Your task to perform on an android device: toggle pop-ups in chrome Image 0: 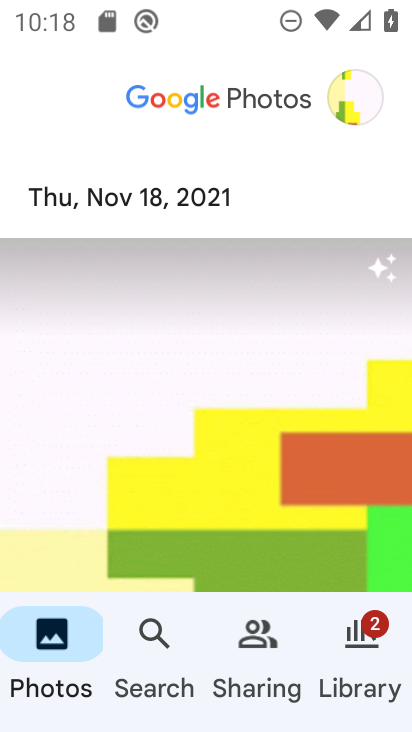
Step 0: press home button
Your task to perform on an android device: toggle pop-ups in chrome Image 1: 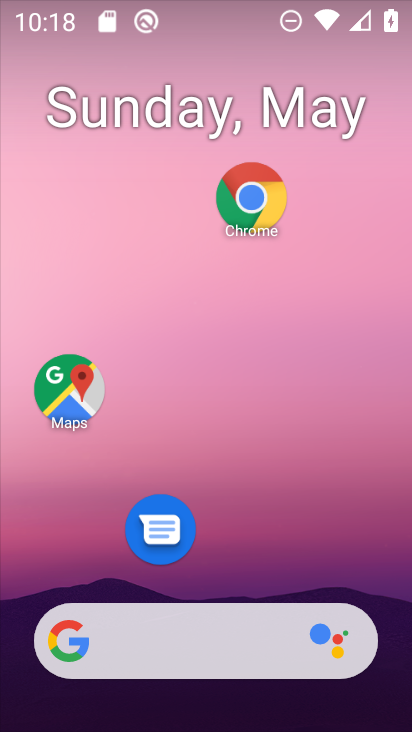
Step 1: click (246, 203)
Your task to perform on an android device: toggle pop-ups in chrome Image 2: 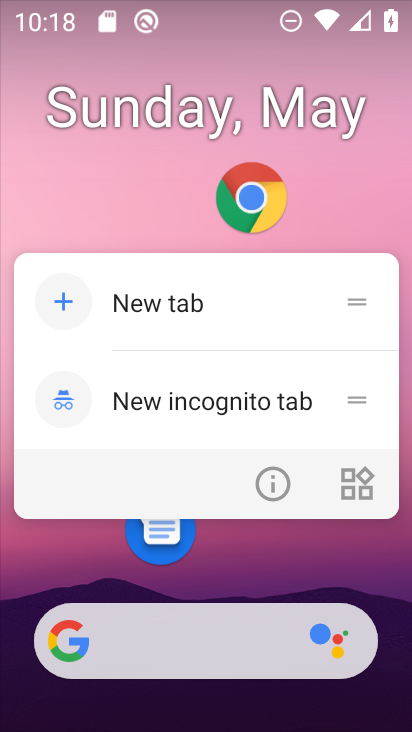
Step 2: click (253, 207)
Your task to perform on an android device: toggle pop-ups in chrome Image 3: 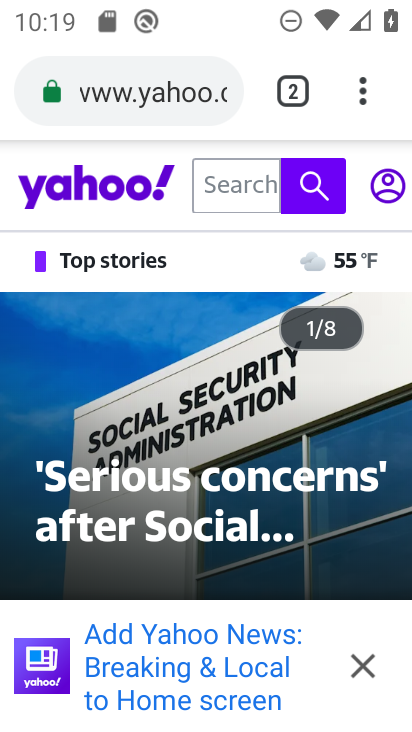
Step 3: click (359, 93)
Your task to perform on an android device: toggle pop-ups in chrome Image 4: 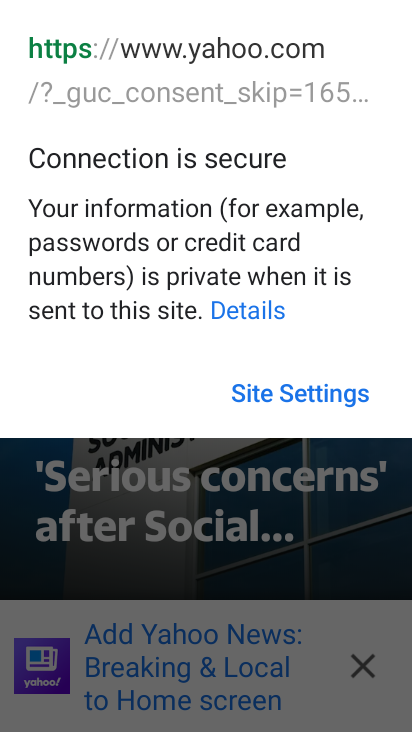
Step 4: click (172, 456)
Your task to perform on an android device: toggle pop-ups in chrome Image 5: 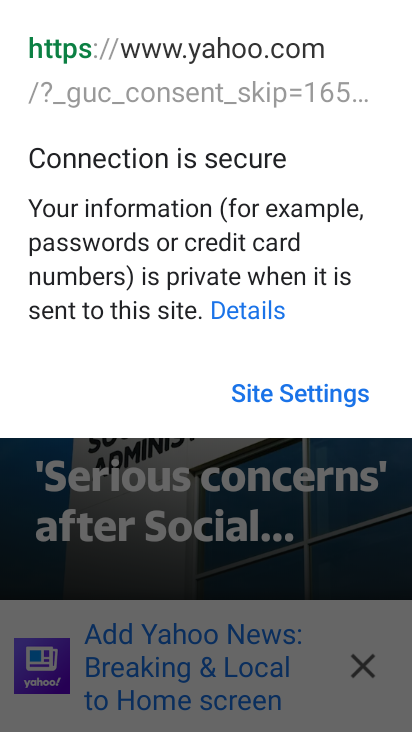
Step 5: click (170, 478)
Your task to perform on an android device: toggle pop-ups in chrome Image 6: 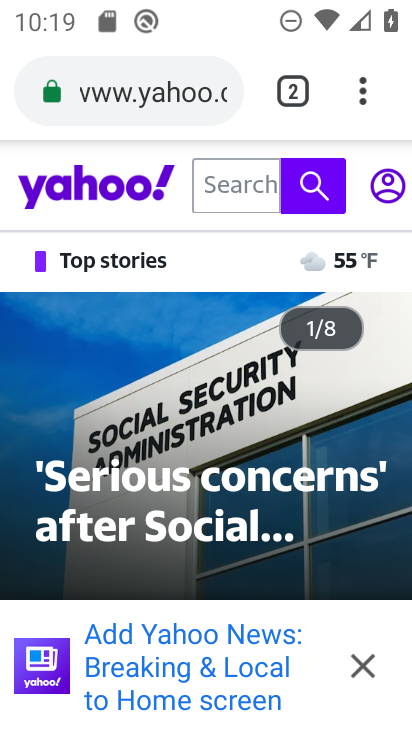
Step 6: click (353, 90)
Your task to perform on an android device: toggle pop-ups in chrome Image 7: 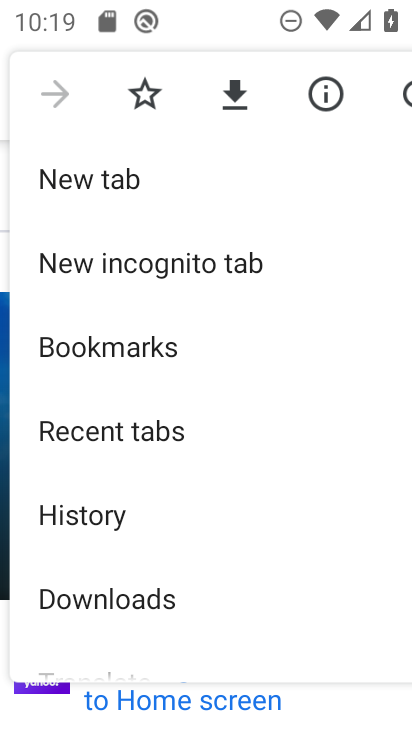
Step 7: drag from (204, 559) to (198, 121)
Your task to perform on an android device: toggle pop-ups in chrome Image 8: 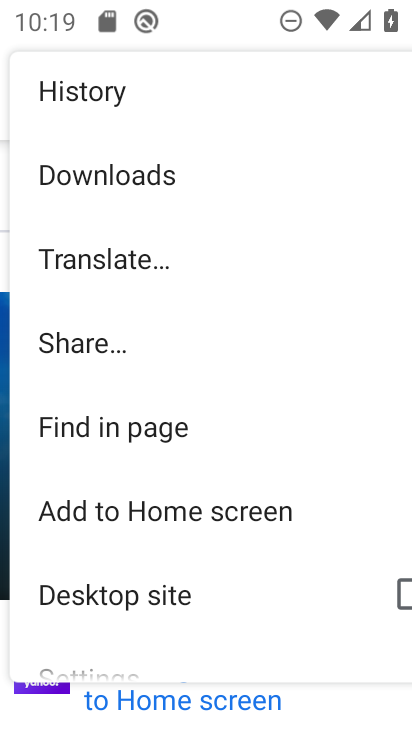
Step 8: drag from (109, 536) to (121, 240)
Your task to perform on an android device: toggle pop-ups in chrome Image 9: 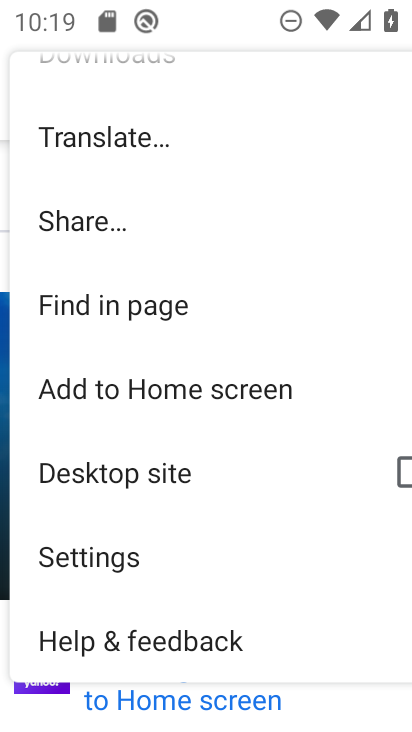
Step 9: click (116, 552)
Your task to perform on an android device: toggle pop-ups in chrome Image 10: 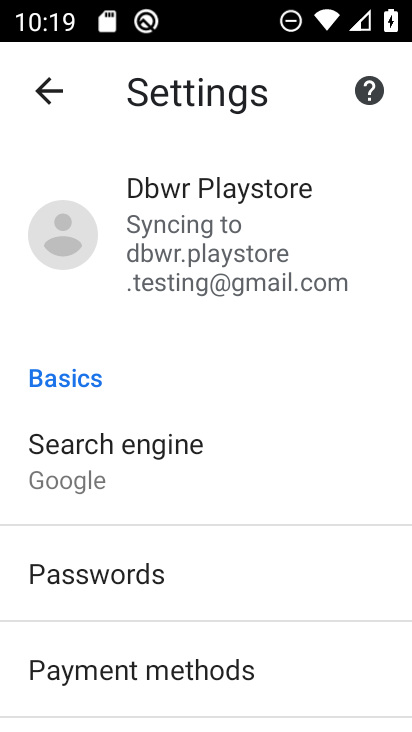
Step 10: drag from (141, 679) to (155, 268)
Your task to perform on an android device: toggle pop-ups in chrome Image 11: 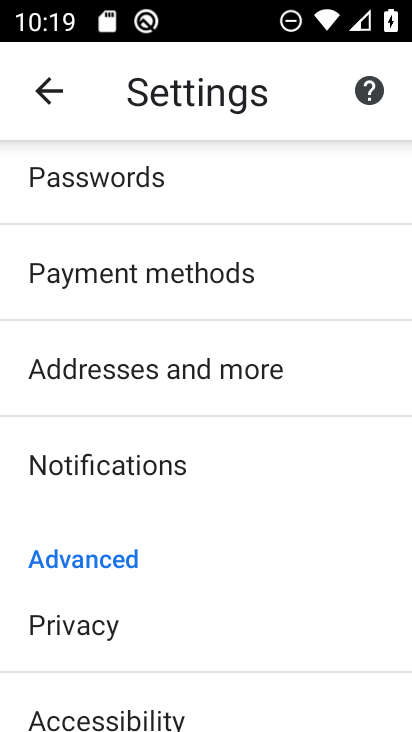
Step 11: drag from (181, 635) to (187, 265)
Your task to perform on an android device: toggle pop-ups in chrome Image 12: 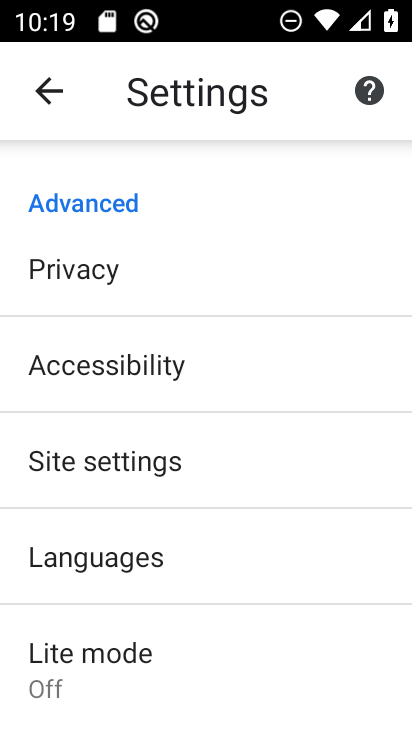
Step 12: drag from (255, 631) to (229, 207)
Your task to perform on an android device: toggle pop-ups in chrome Image 13: 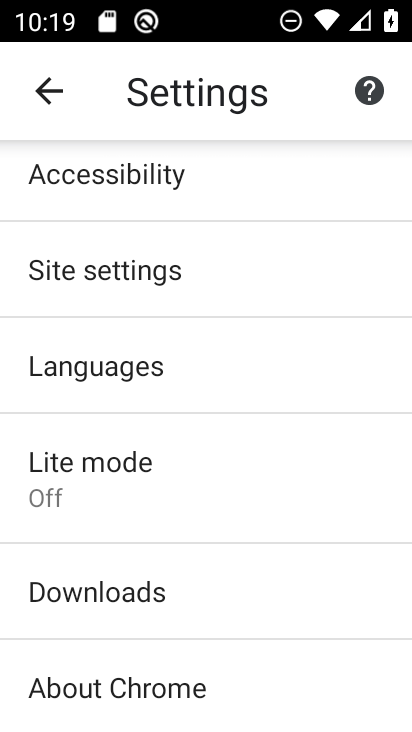
Step 13: click (228, 274)
Your task to perform on an android device: toggle pop-ups in chrome Image 14: 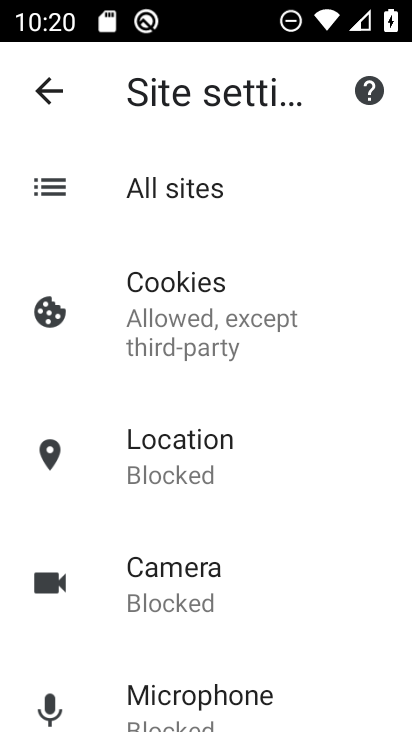
Step 14: drag from (203, 646) to (199, 297)
Your task to perform on an android device: toggle pop-ups in chrome Image 15: 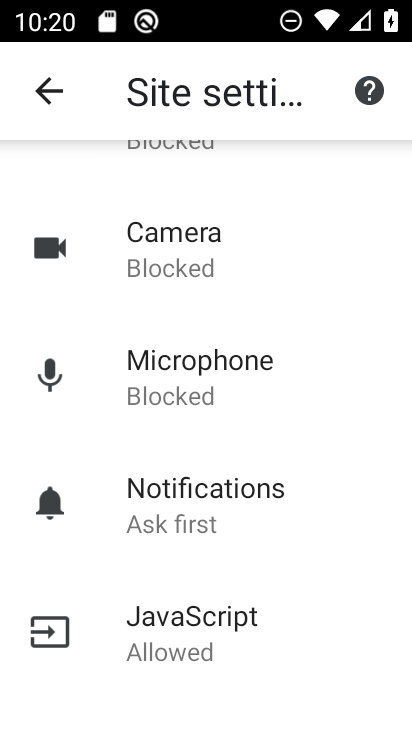
Step 15: drag from (212, 610) to (223, 380)
Your task to perform on an android device: toggle pop-ups in chrome Image 16: 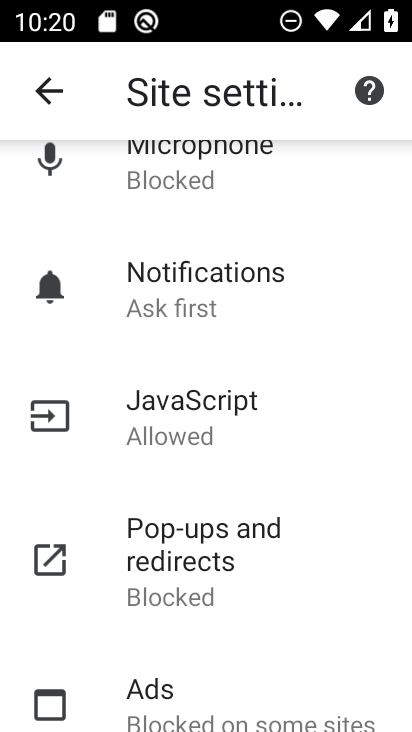
Step 16: click (241, 552)
Your task to perform on an android device: toggle pop-ups in chrome Image 17: 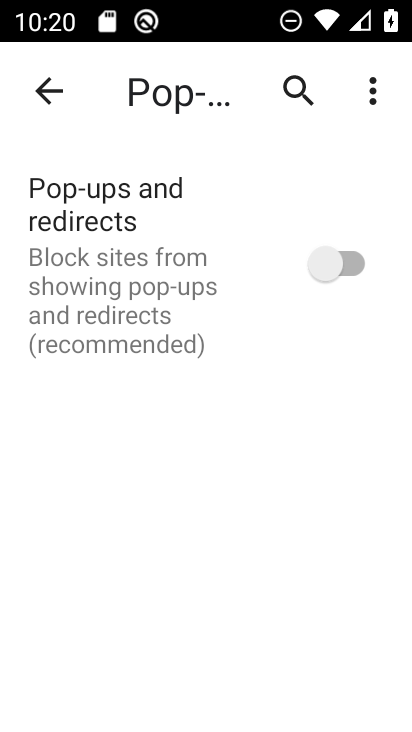
Step 17: click (343, 262)
Your task to perform on an android device: toggle pop-ups in chrome Image 18: 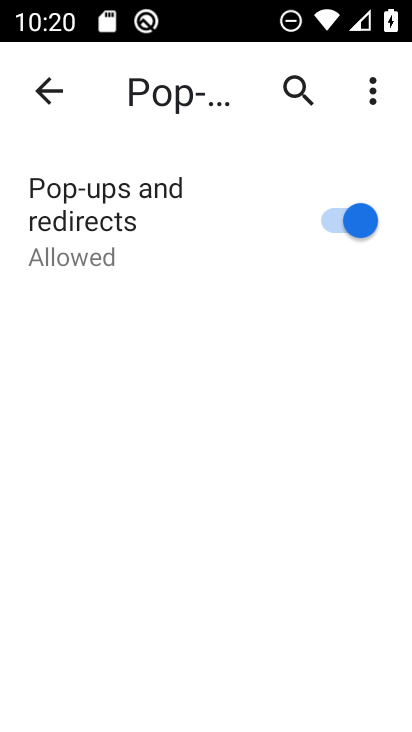
Step 18: task complete